Your task to perform on an android device: show emergency info Image 0: 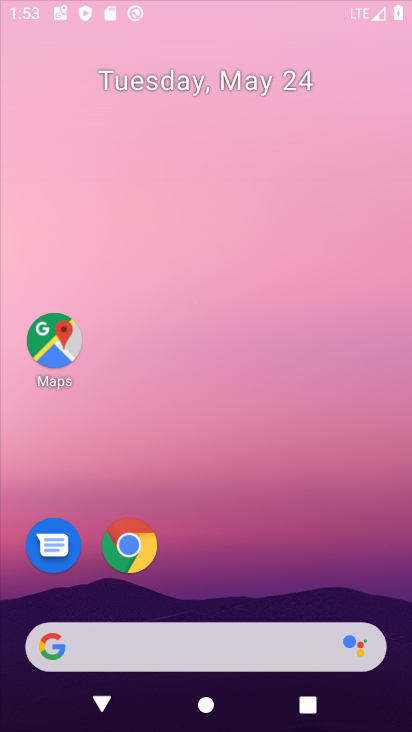
Step 0: click (318, 109)
Your task to perform on an android device: show emergency info Image 1: 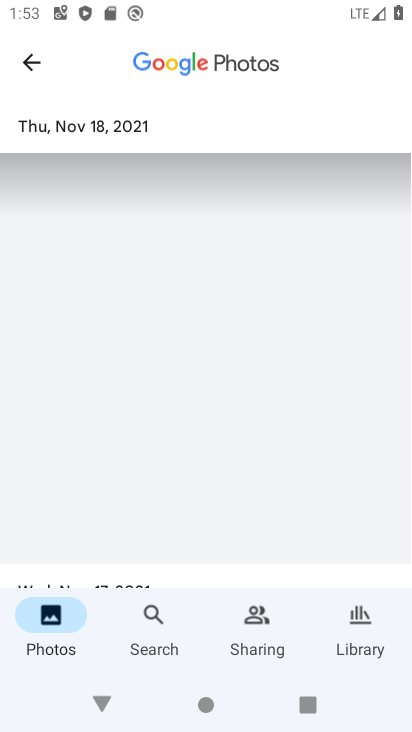
Step 1: drag from (213, 593) to (307, 183)
Your task to perform on an android device: show emergency info Image 2: 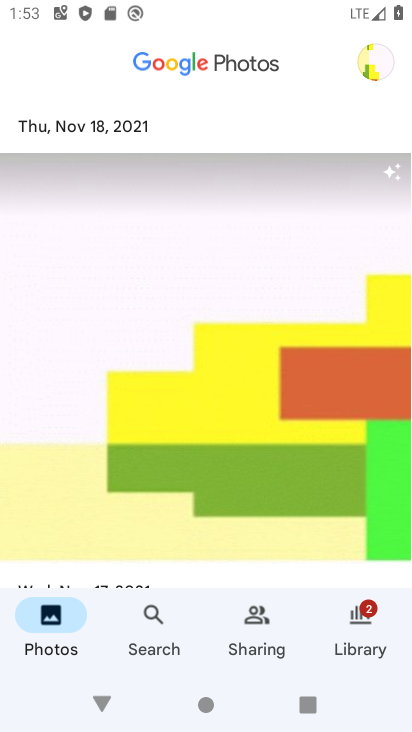
Step 2: press home button
Your task to perform on an android device: show emergency info Image 3: 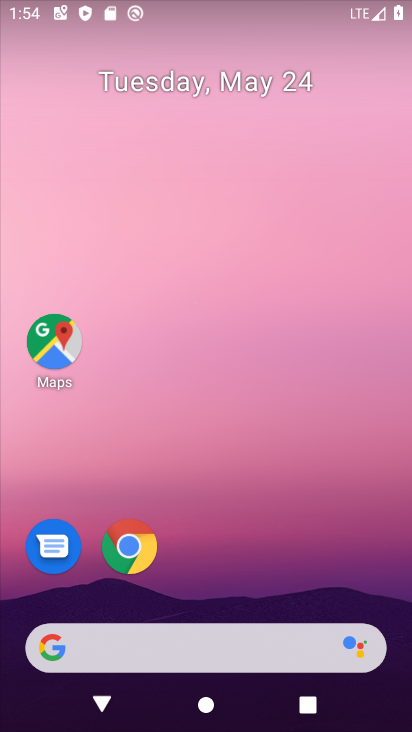
Step 3: drag from (208, 595) to (174, 49)
Your task to perform on an android device: show emergency info Image 4: 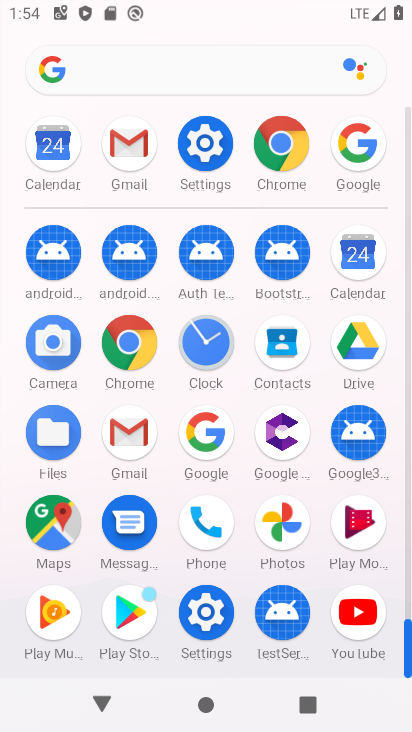
Step 4: click (207, 140)
Your task to perform on an android device: show emergency info Image 5: 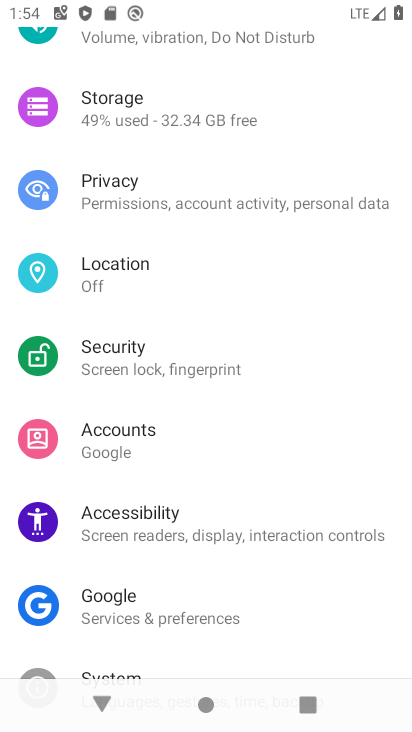
Step 5: drag from (209, 602) to (138, 10)
Your task to perform on an android device: show emergency info Image 6: 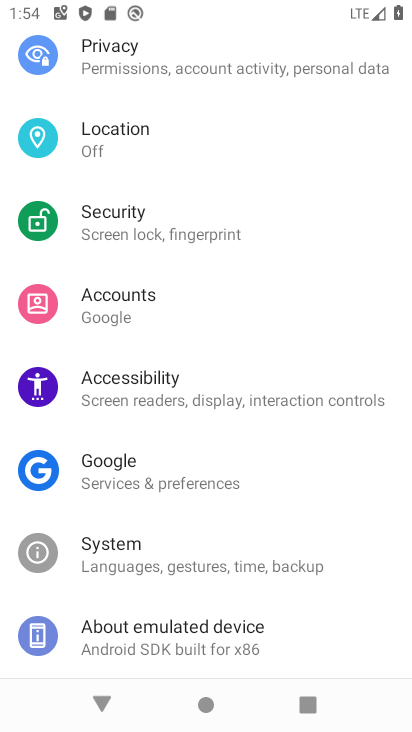
Step 6: click (232, 619)
Your task to perform on an android device: show emergency info Image 7: 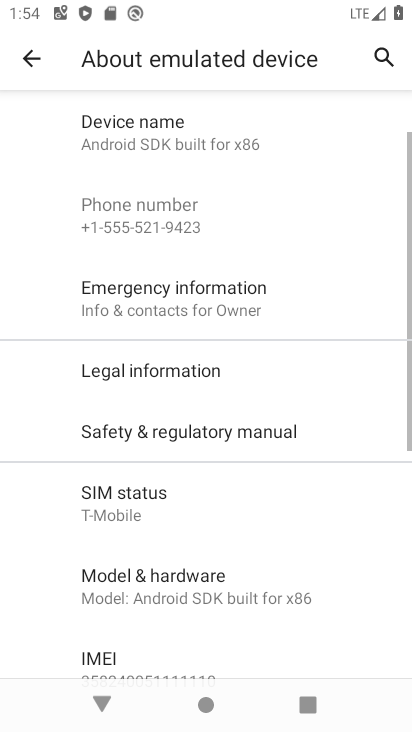
Step 7: click (169, 315)
Your task to perform on an android device: show emergency info Image 8: 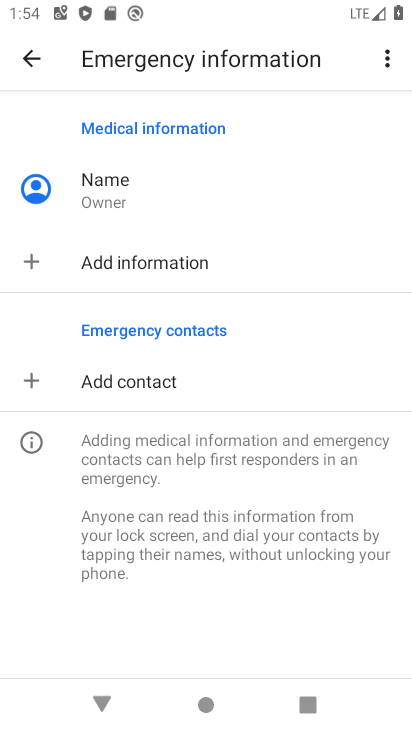
Step 8: task complete